Your task to perform on an android device: turn off sleep mode Image 0: 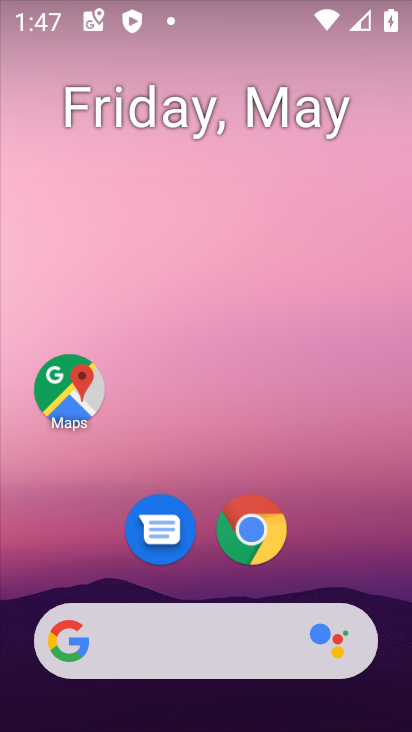
Step 0: drag from (364, 573) to (232, 339)
Your task to perform on an android device: turn off sleep mode Image 1: 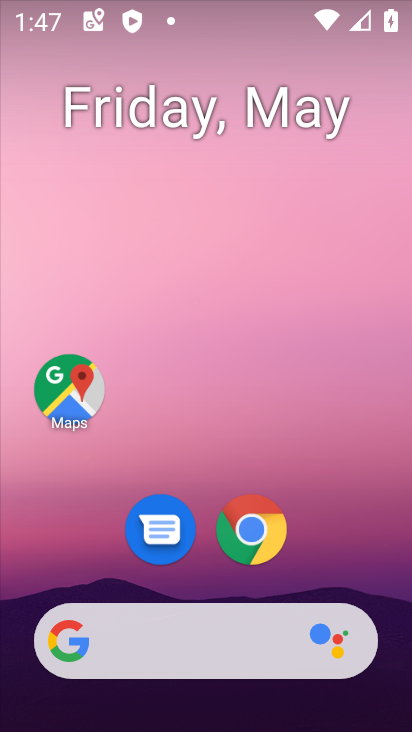
Step 1: drag from (352, 549) to (253, 125)
Your task to perform on an android device: turn off sleep mode Image 2: 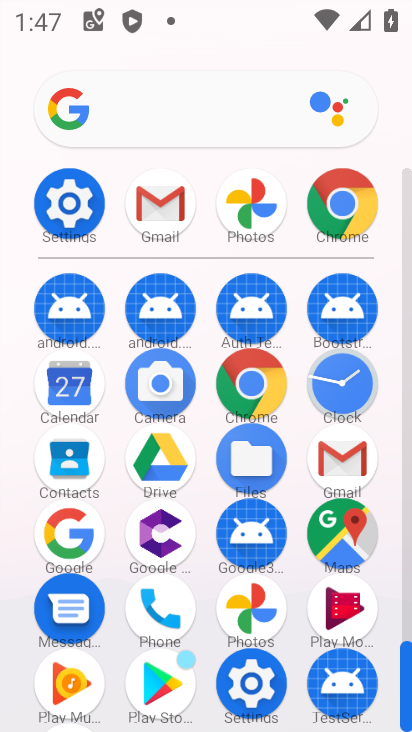
Step 2: click (63, 208)
Your task to perform on an android device: turn off sleep mode Image 3: 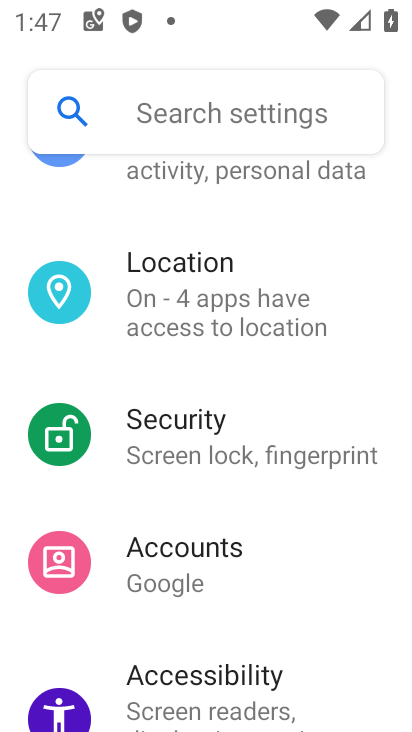
Step 3: drag from (261, 601) to (200, 125)
Your task to perform on an android device: turn off sleep mode Image 4: 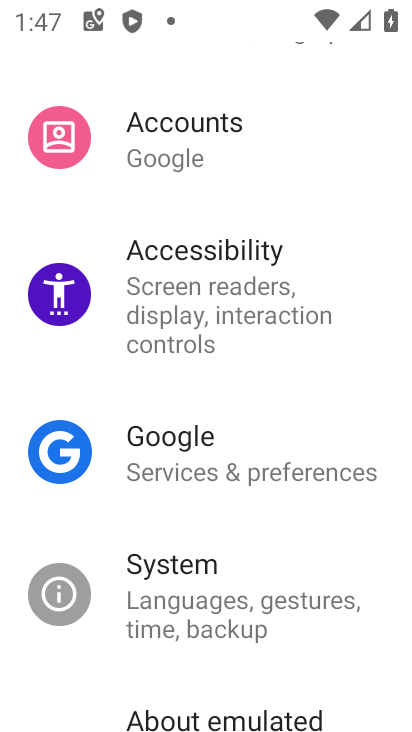
Step 4: drag from (153, 280) to (232, 603)
Your task to perform on an android device: turn off sleep mode Image 5: 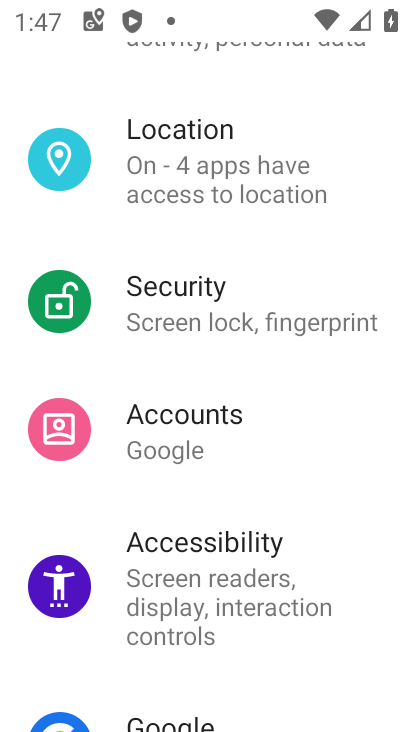
Step 5: drag from (195, 288) to (265, 718)
Your task to perform on an android device: turn off sleep mode Image 6: 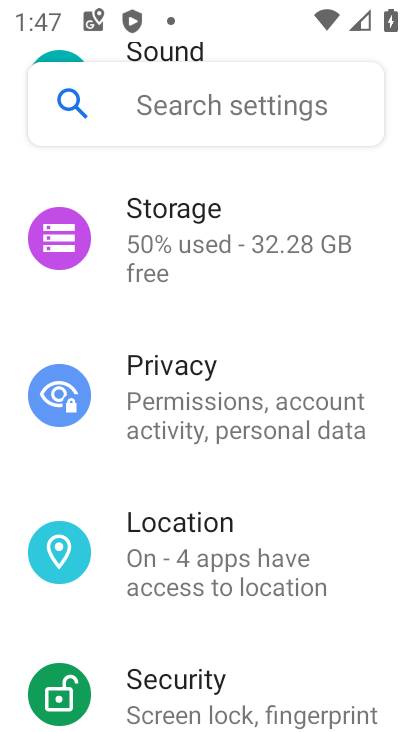
Step 6: drag from (169, 269) to (146, 688)
Your task to perform on an android device: turn off sleep mode Image 7: 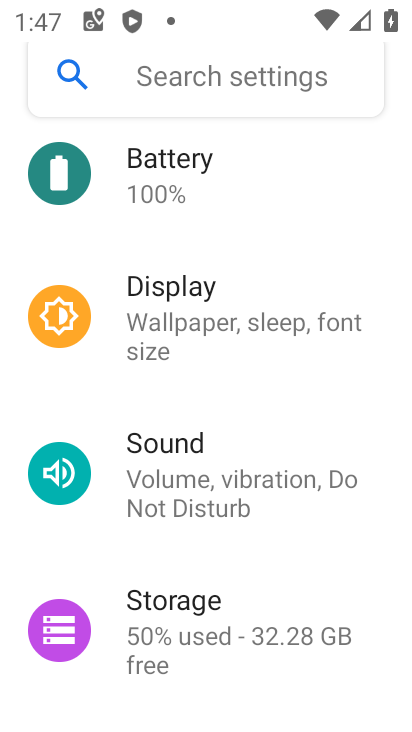
Step 7: click (148, 334)
Your task to perform on an android device: turn off sleep mode Image 8: 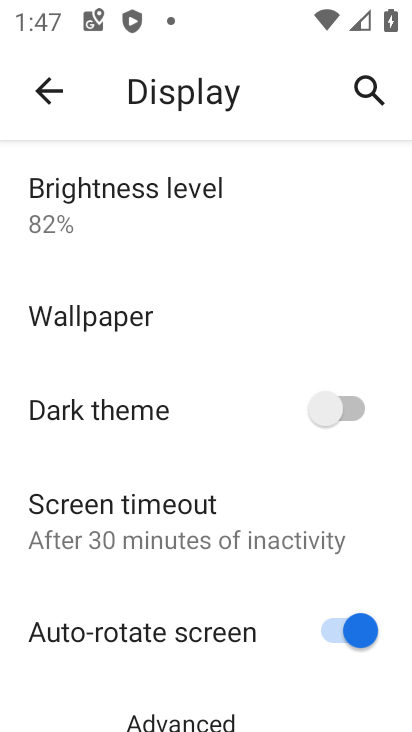
Step 8: drag from (197, 517) to (179, 386)
Your task to perform on an android device: turn off sleep mode Image 9: 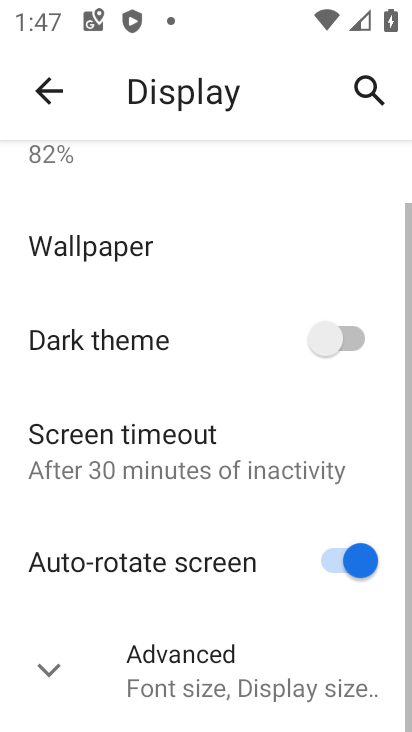
Step 9: click (179, 386)
Your task to perform on an android device: turn off sleep mode Image 10: 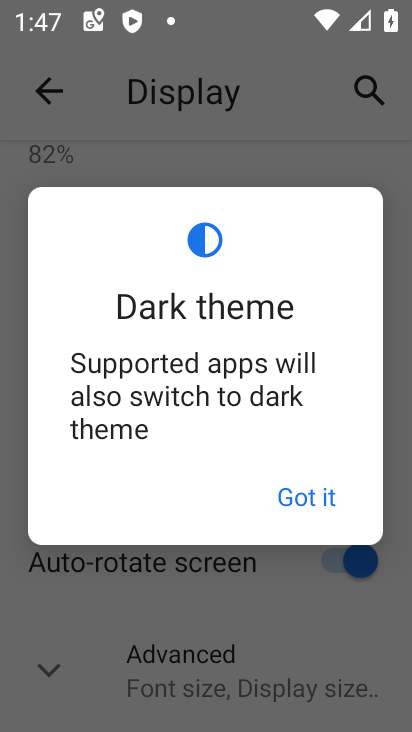
Step 10: click (197, 427)
Your task to perform on an android device: turn off sleep mode Image 11: 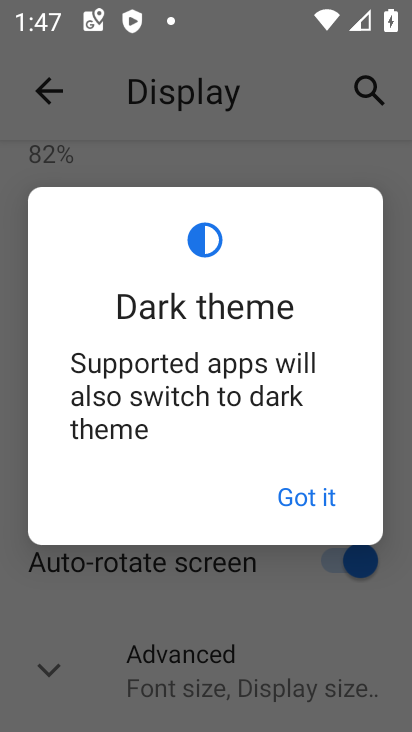
Step 11: click (292, 499)
Your task to perform on an android device: turn off sleep mode Image 12: 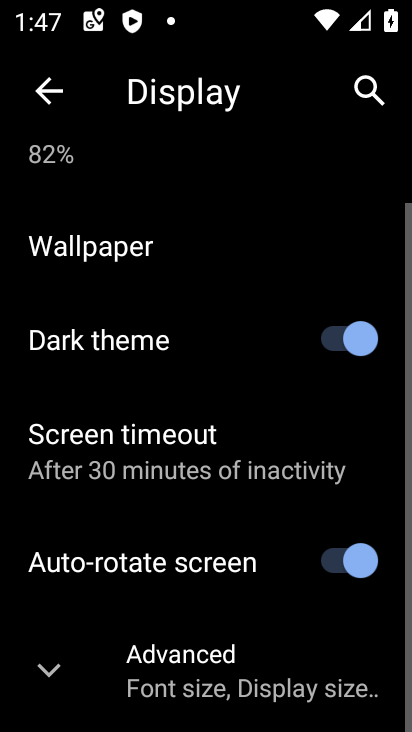
Step 12: click (212, 471)
Your task to perform on an android device: turn off sleep mode Image 13: 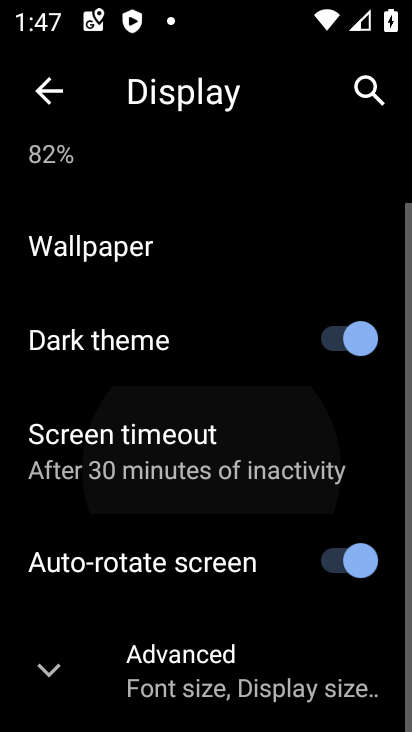
Step 13: click (212, 471)
Your task to perform on an android device: turn off sleep mode Image 14: 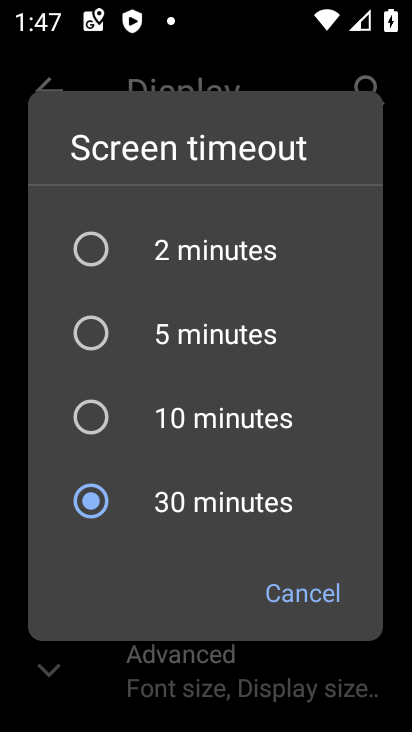
Step 14: task complete